Your task to perform on an android device: Go to Amazon Image 0: 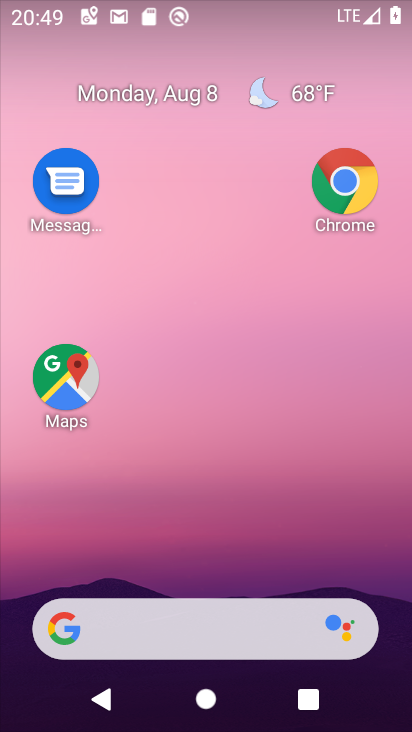
Step 0: drag from (186, 580) to (243, 68)
Your task to perform on an android device: Go to Amazon Image 1: 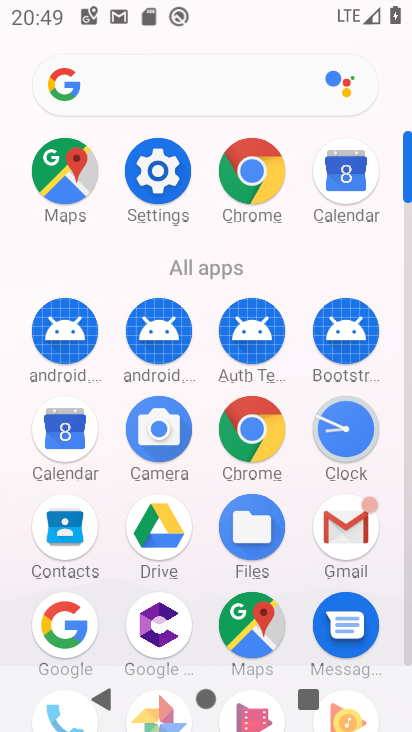
Step 1: click (263, 210)
Your task to perform on an android device: Go to Amazon Image 2: 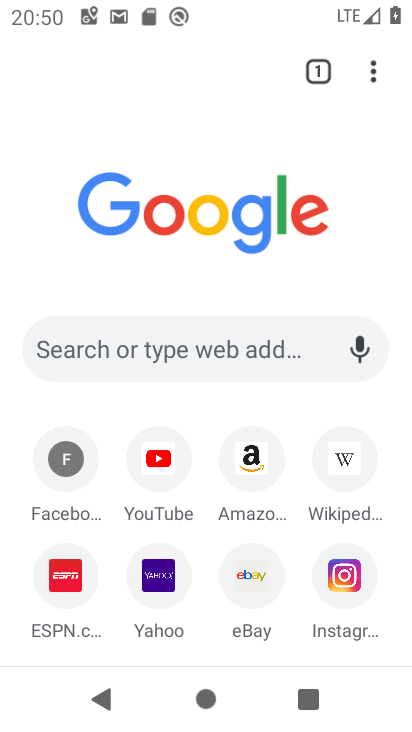
Step 2: click (238, 447)
Your task to perform on an android device: Go to Amazon Image 3: 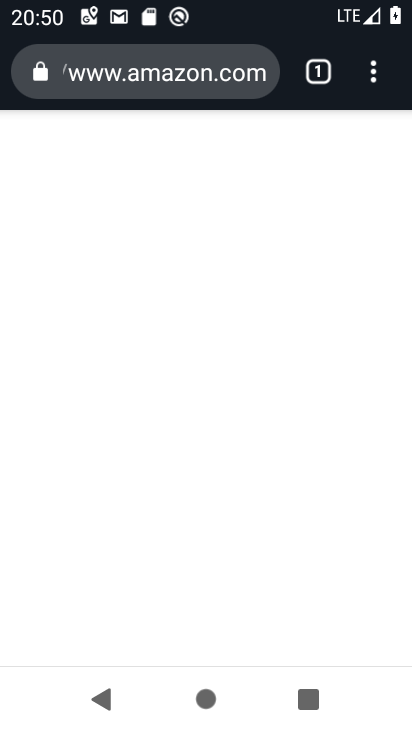
Step 3: task complete